Your task to perform on an android device: change the clock display to show seconds Image 0: 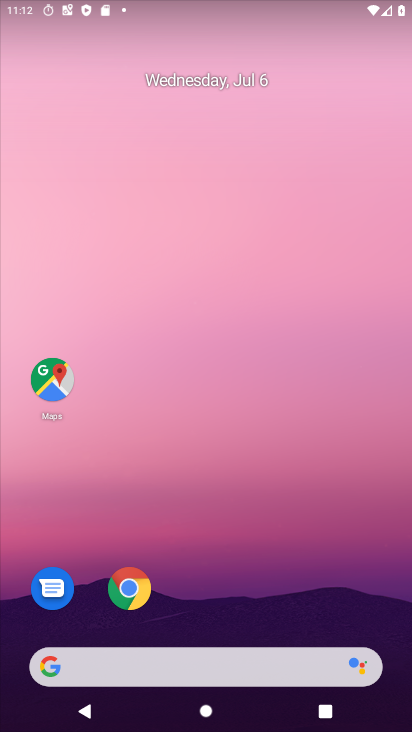
Step 0: drag from (243, 708) to (224, 211)
Your task to perform on an android device: change the clock display to show seconds Image 1: 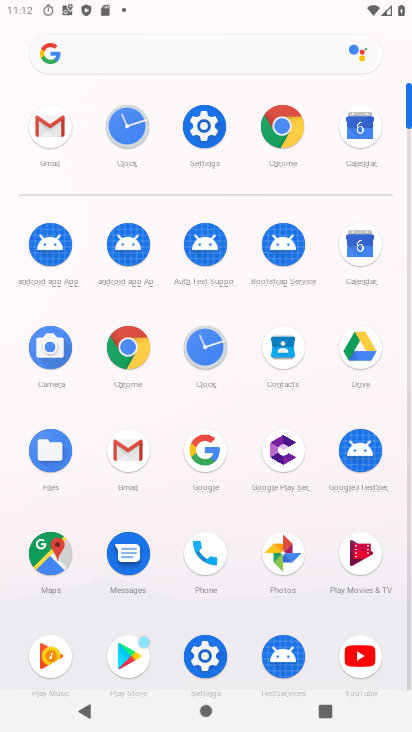
Step 1: click (211, 348)
Your task to perform on an android device: change the clock display to show seconds Image 2: 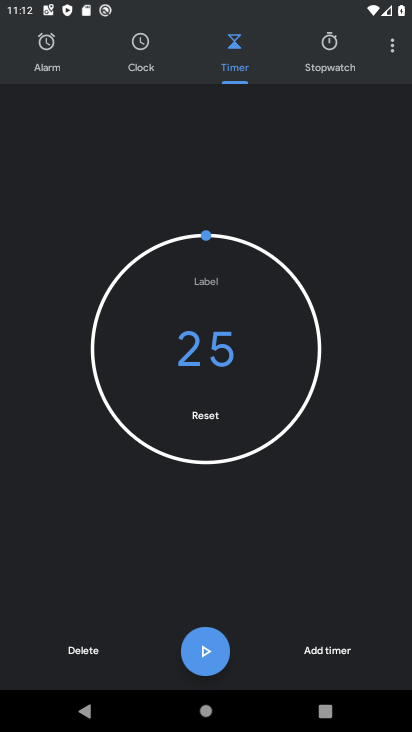
Step 2: click (392, 51)
Your task to perform on an android device: change the clock display to show seconds Image 3: 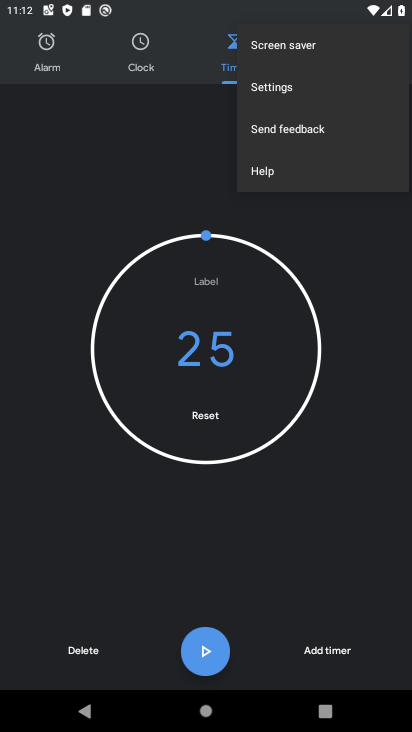
Step 3: click (273, 82)
Your task to perform on an android device: change the clock display to show seconds Image 4: 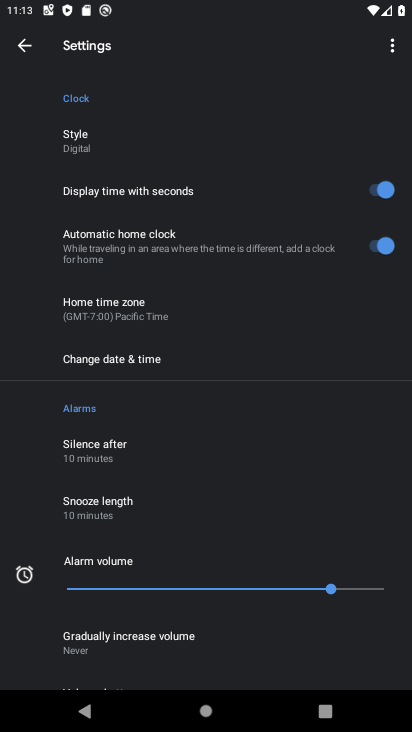
Step 4: task complete